Your task to perform on an android device: Open internet settings Image 0: 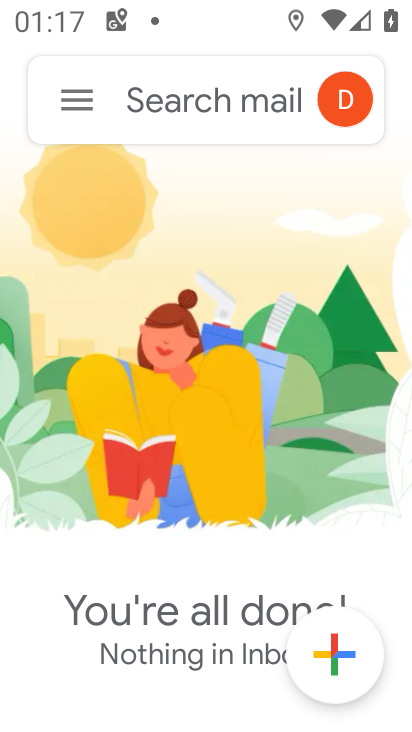
Step 0: press home button
Your task to perform on an android device: Open internet settings Image 1: 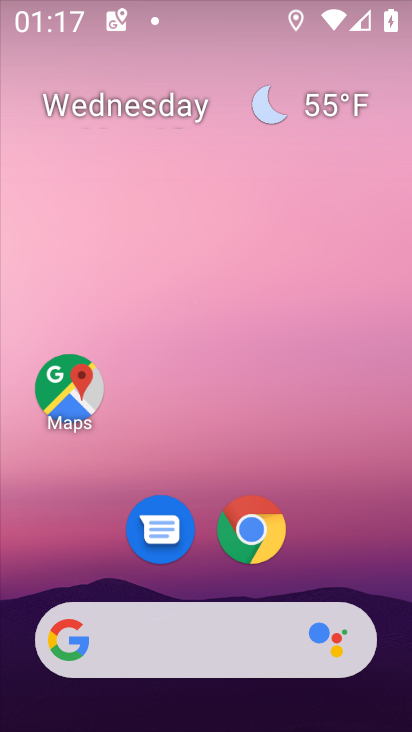
Step 1: drag from (212, 721) to (207, 205)
Your task to perform on an android device: Open internet settings Image 2: 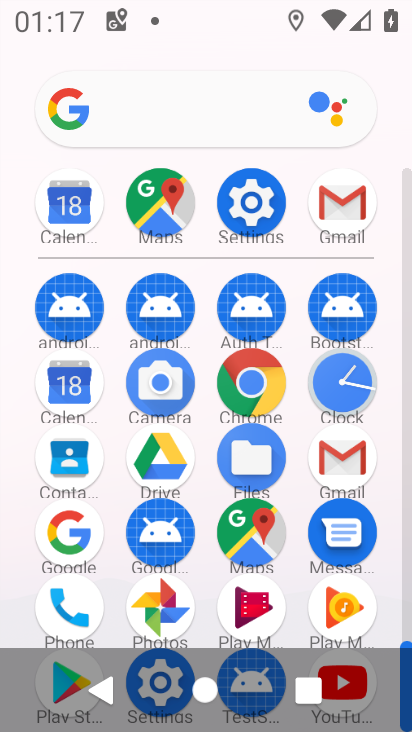
Step 2: click (247, 202)
Your task to perform on an android device: Open internet settings Image 3: 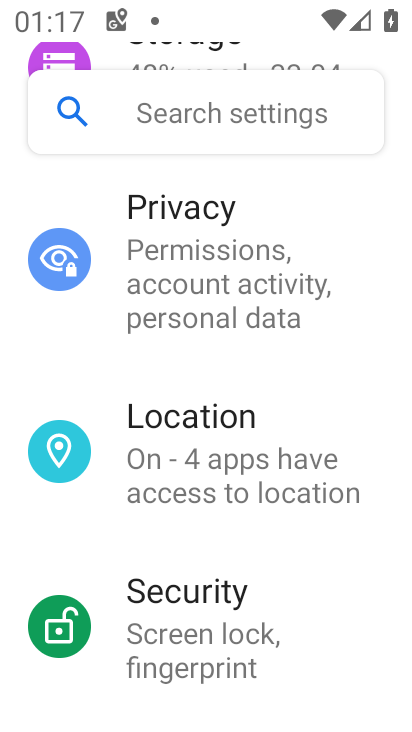
Step 3: drag from (292, 187) to (298, 569)
Your task to perform on an android device: Open internet settings Image 4: 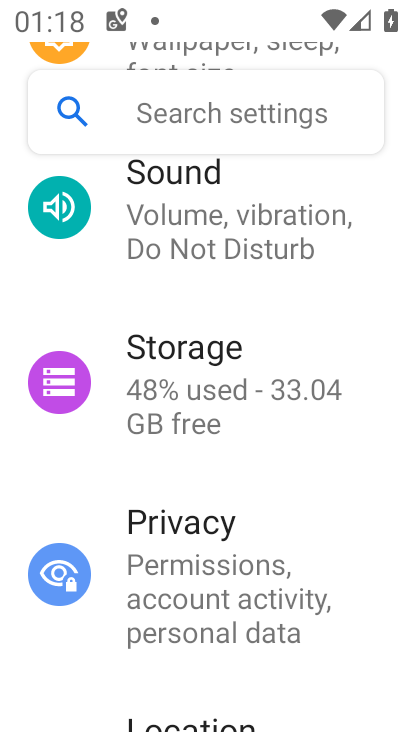
Step 4: drag from (276, 195) to (273, 589)
Your task to perform on an android device: Open internet settings Image 5: 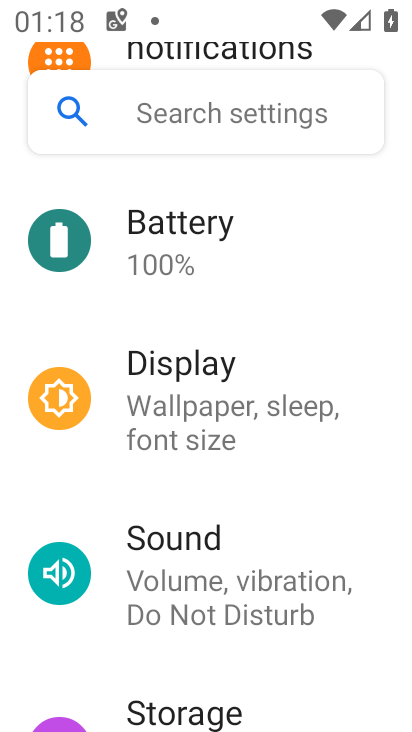
Step 5: drag from (272, 188) to (265, 673)
Your task to perform on an android device: Open internet settings Image 6: 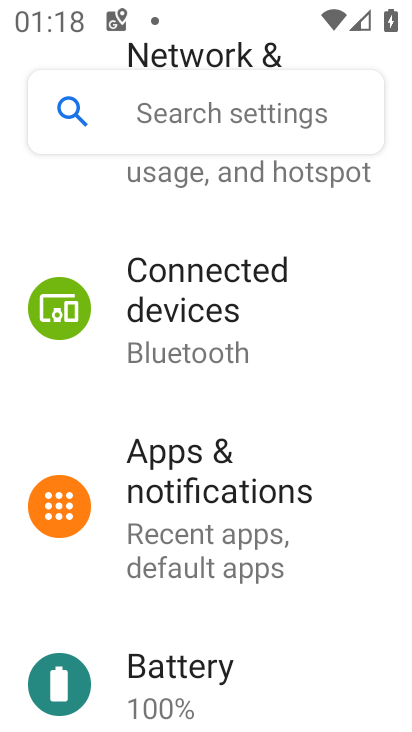
Step 6: drag from (207, 218) to (211, 585)
Your task to perform on an android device: Open internet settings Image 7: 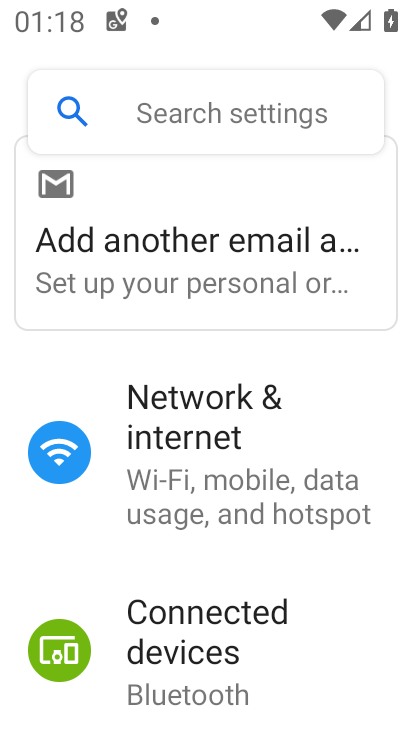
Step 7: click (188, 452)
Your task to perform on an android device: Open internet settings Image 8: 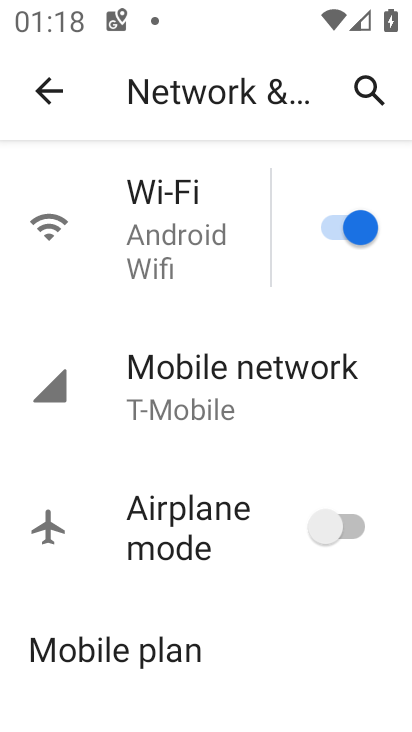
Step 8: task complete